Your task to perform on an android device: turn on wifi Image 0: 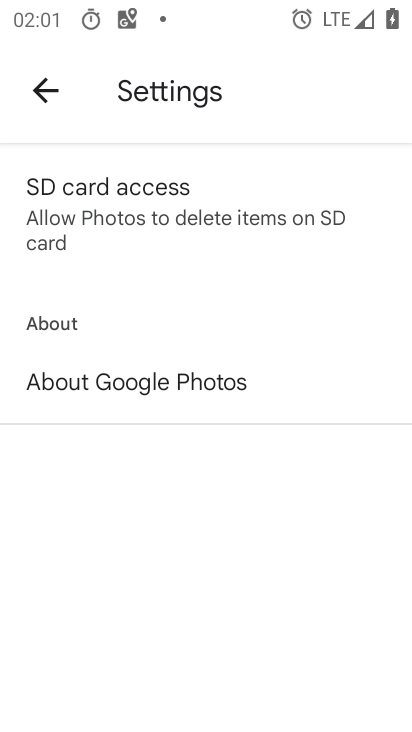
Step 0: press home button
Your task to perform on an android device: turn on wifi Image 1: 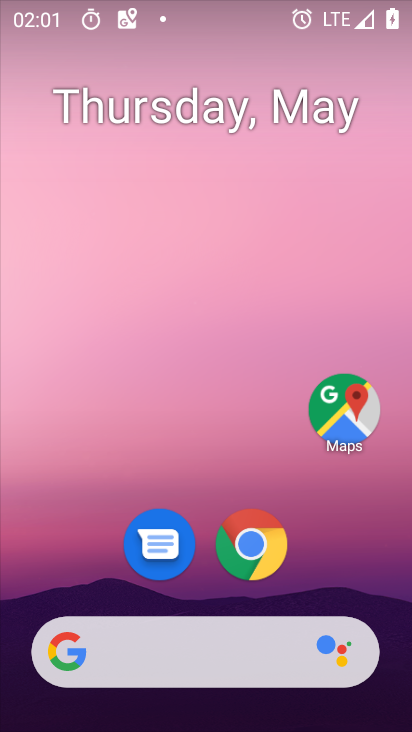
Step 1: drag from (321, 575) to (312, 131)
Your task to perform on an android device: turn on wifi Image 2: 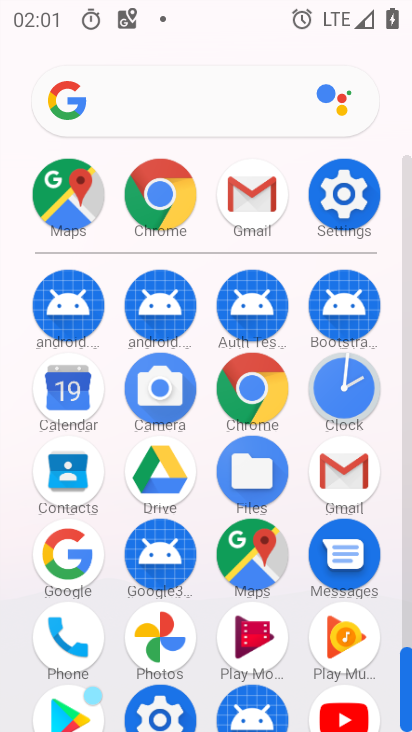
Step 2: click (353, 216)
Your task to perform on an android device: turn on wifi Image 3: 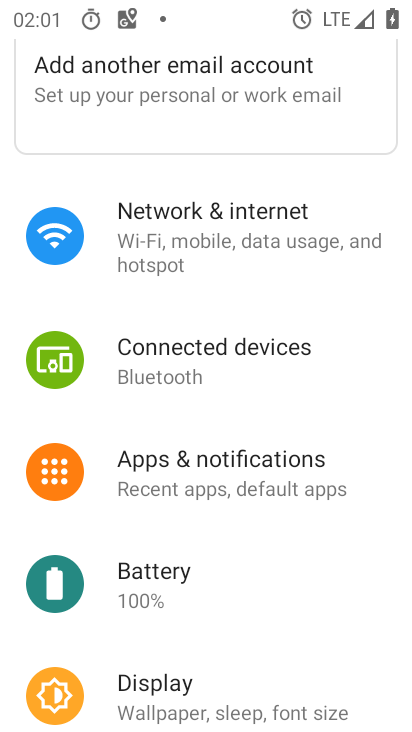
Step 3: drag from (354, 619) to (354, 506)
Your task to perform on an android device: turn on wifi Image 4: 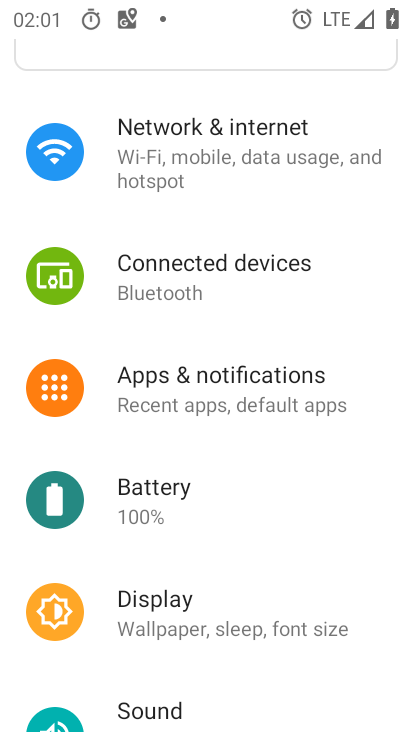
Step 4: drag from (357, 648) to (356, 511)
Your task to perform on an android device: turn on wifi Image 5: 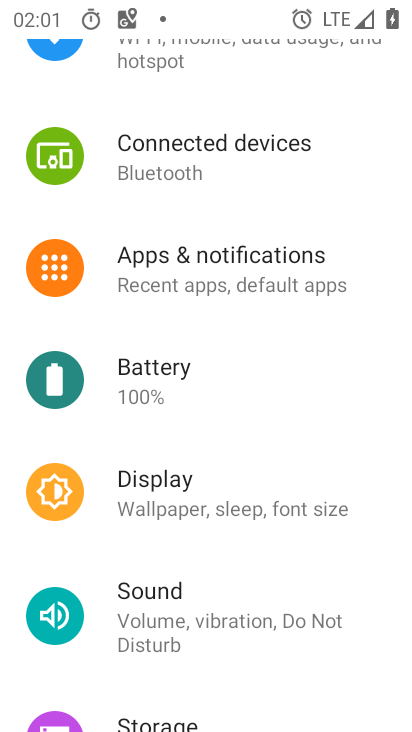
Step 5: drag from (359, 651) to (354, 533)
Your task to perform on an android device: turn on wifi Image 6: 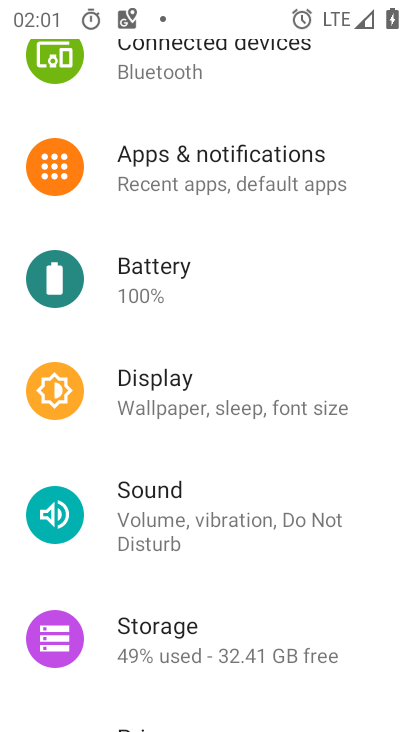
Step 6: drag from (355, 667) to (352, 521)
Your task to perform on an android device: turn on wifi Image 7: 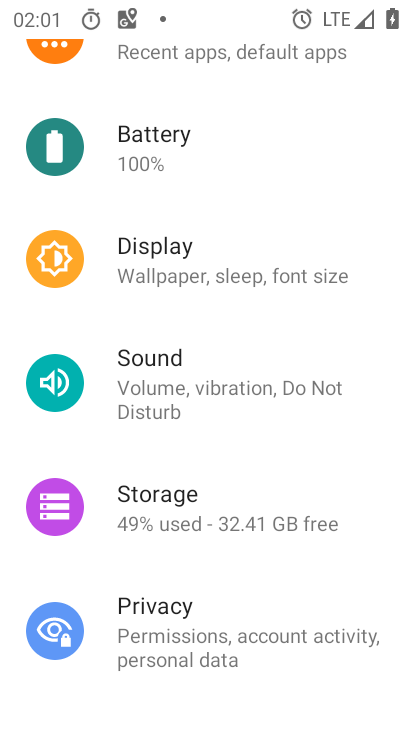
Step 7: drag from (337, 679) to (345, 537)
Your task to perform on an android device: turn on wifi Image 8: 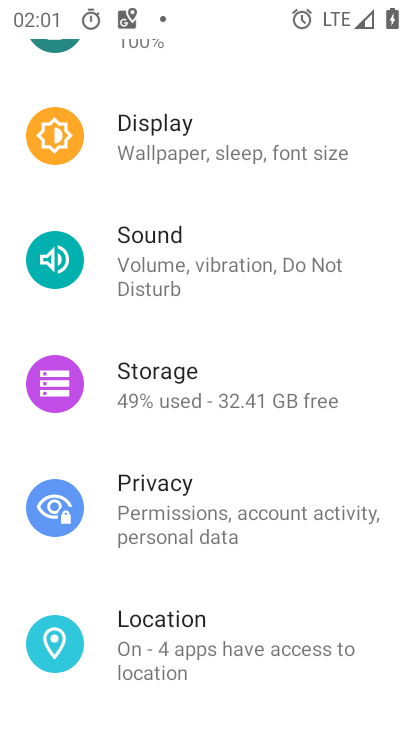
Step 8: drag from (341, 692) to (340, 591)
Your task to perform on an android device: turn on wifi Image 9: 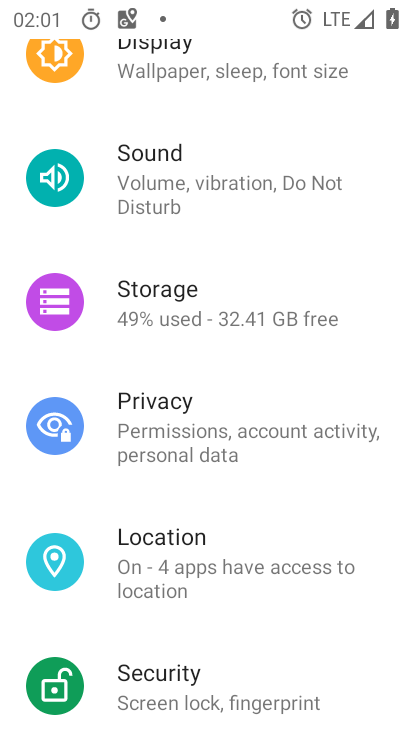
Step 9: drag from (327, 665) to (326, 515)
Your task to perform on an android device: turn on wifi Image 10: 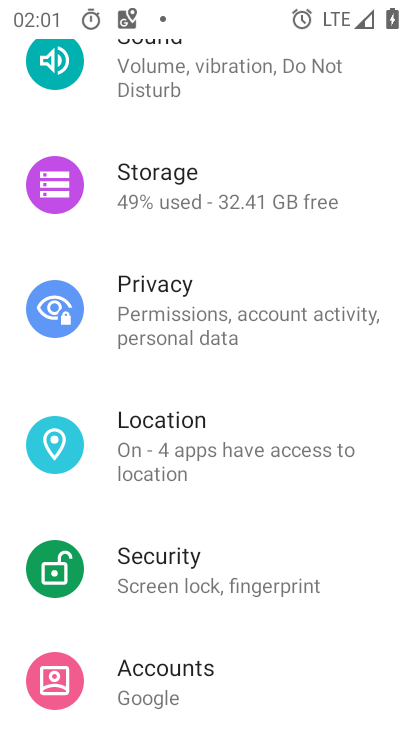
Step 10: drag from (343, 655) to (365, 519)
Your task to perform on an android device: turn on wifi Image 11: 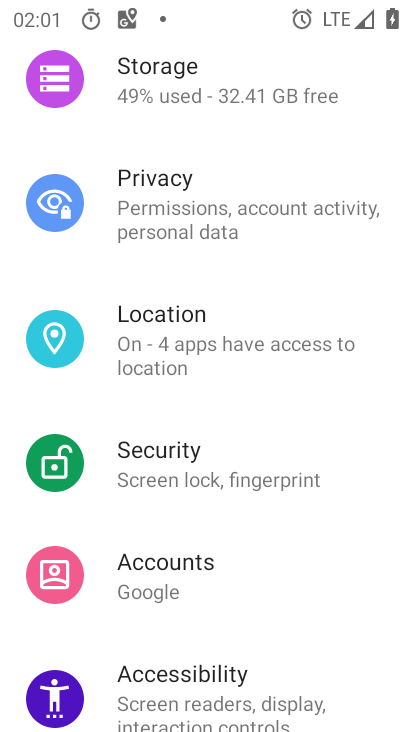
Step 11: drag from (345, 585) to (360, 440)
Your task to perform on an android device: turn on wifi Image 12: 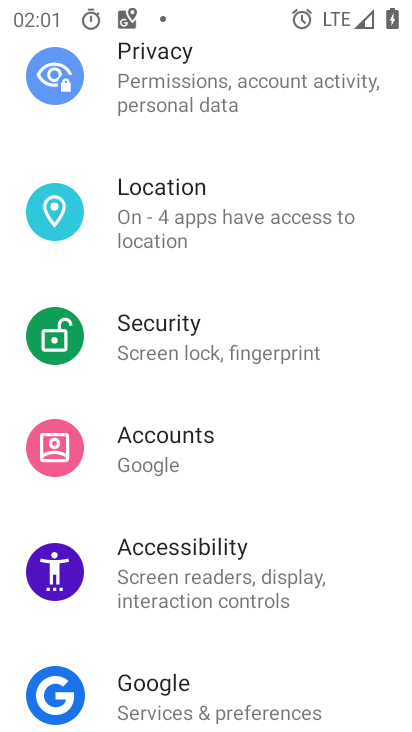
Step 12: drag from (359, 585) to (365, 427)
Your task to perform on an android device: turn on wifi Image 13: 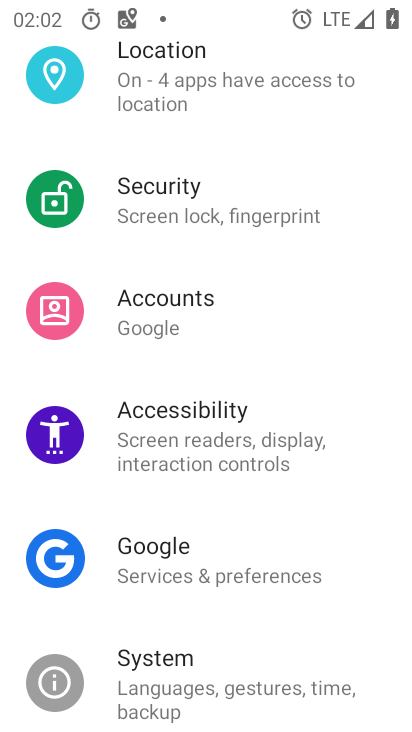
Step 13: drag from (359, 605) to (337, 360)
Your task to perform on an android device: turn on wifi Image 14: 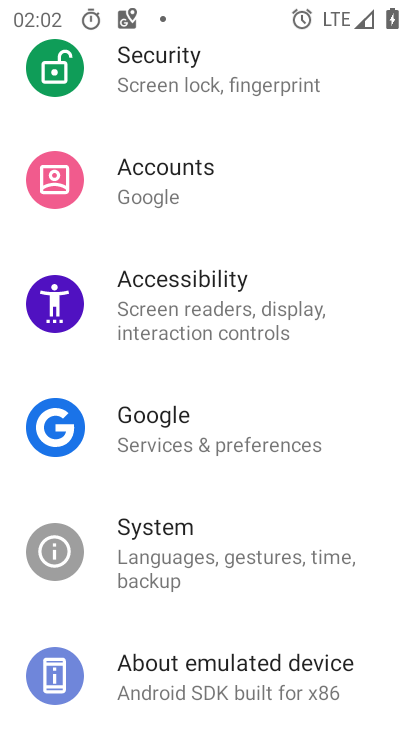
Step 14: drag from (355, 609) to (365, 317)
Your task to perform on an android device: turn on wifi Image 15: 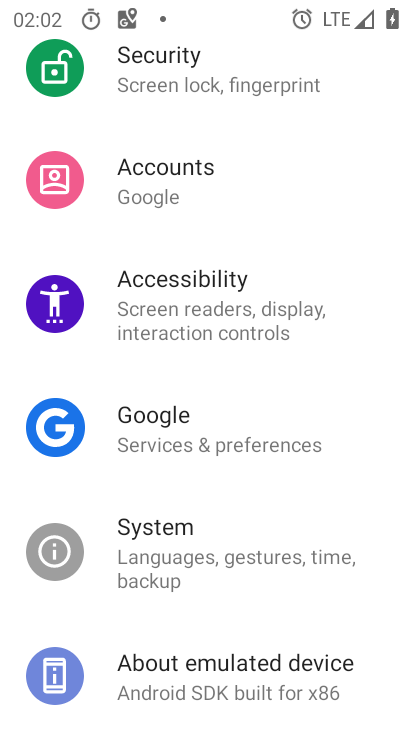
Step 15: drag from (359, 228) to (355, 519)
Your task to perform on an android device: turn on wifi Image 16: 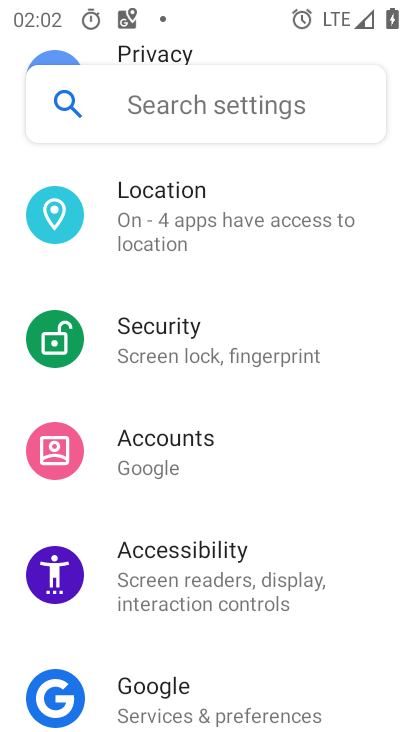
Step 16: drag from (342, 275) to (374, 517)
Your task to perform on an android device: turn on wifi Image 17: 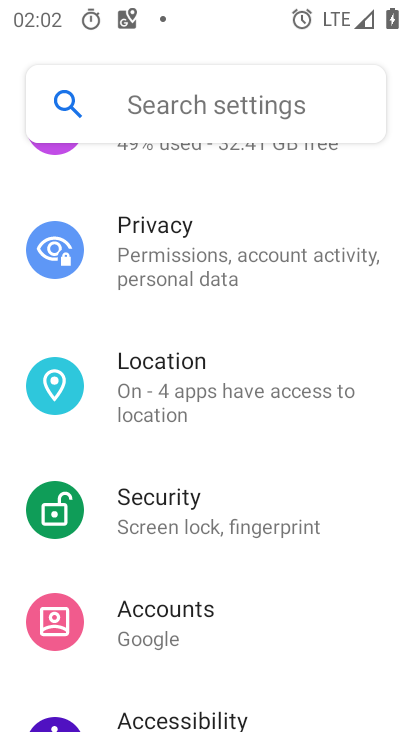
Step 17: drag from (353, 293) to (353, 527)
Your task to perform on an android device: turn on wifi Image 18: 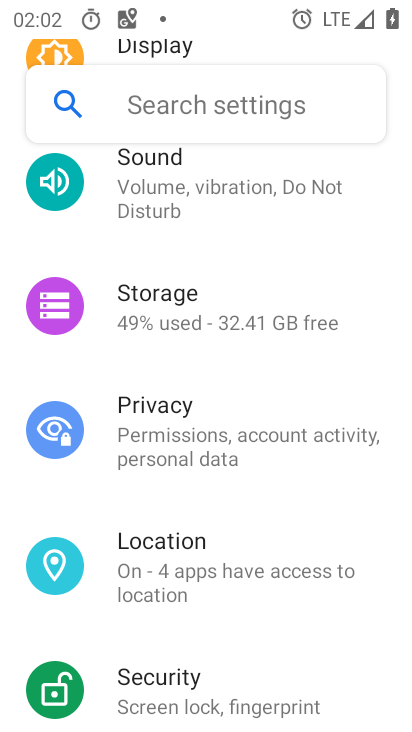
Step 18: drag from (338, 247) to (338, 500)
Your task to perform on an android device: turn on wifi Image 19: 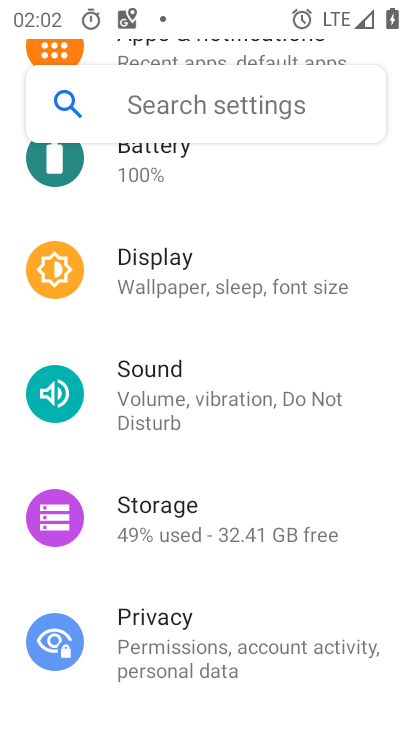
Step 19: drag from (364, 204) to (356, 424)
Your task to perform on an android device: turn on wifi Image 20: 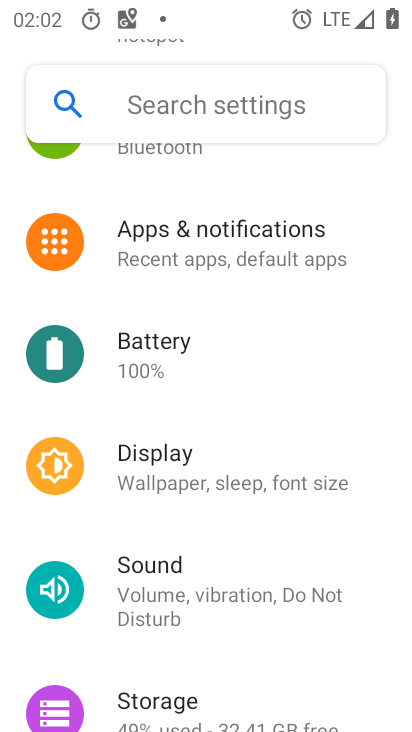
Step 20: drag from (351, 218) to (355, 455)
Your task to perform on an android device: turn on wifi Image 21: 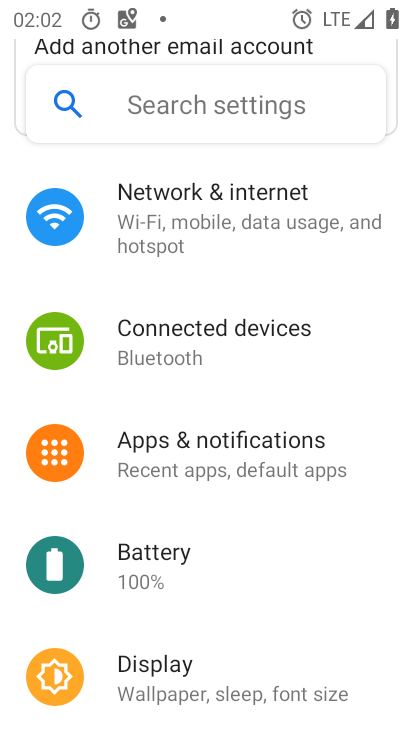
Step 21: drag from (365, 273) to (368, 510)
Your task to perform on an android device: turn on wifi Image 22: 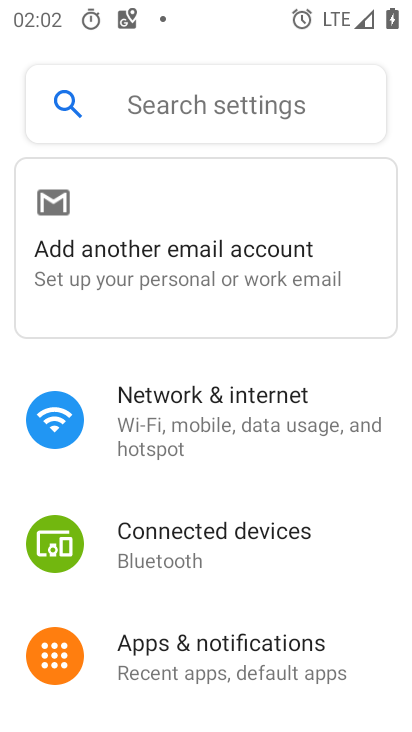
Step 22: click (300, 427)
Your task to perform on an android device: turn on wifi Image 23: 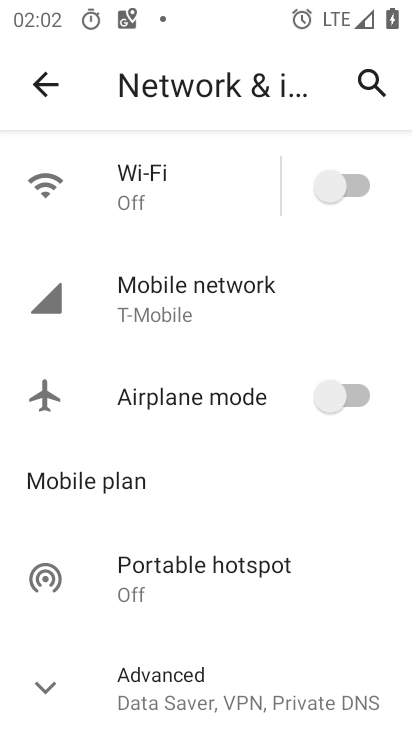
Step 23: click (339, 183)
Your task to perform on an android device: turn on wifi Image 24: 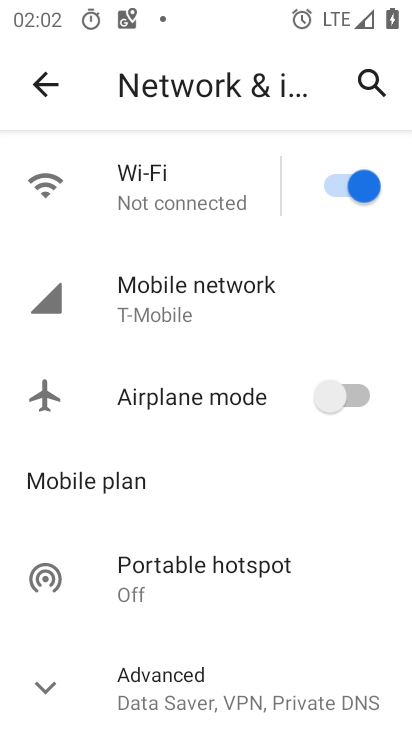
Step 24: task complete